Your task to perform on an android device: turn off translation in the chrome app Image 0: 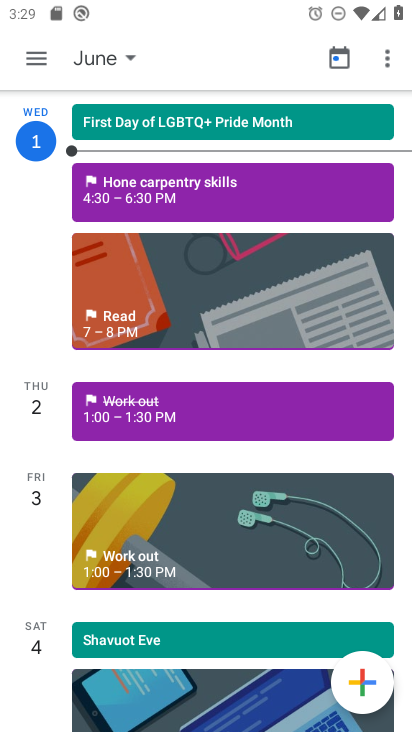
Step 0: press home button
Your task to perform on an android device: turn off translation in the chrome app Image 1: 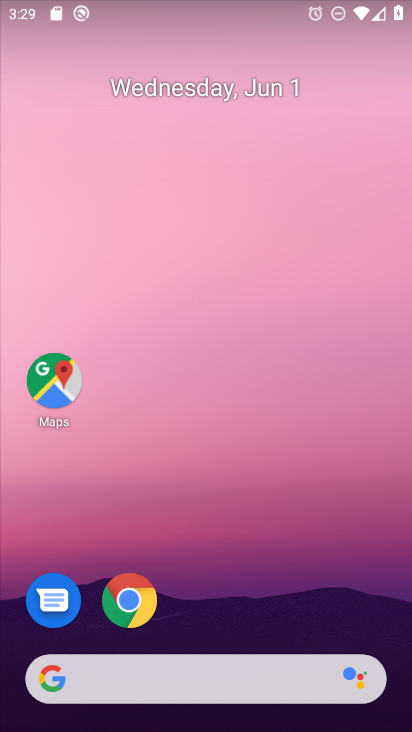
Step 1: drag from (214, 602) to (231, 239)
Your task to perform on an android device: turn off translation in the chrome app Image 2: 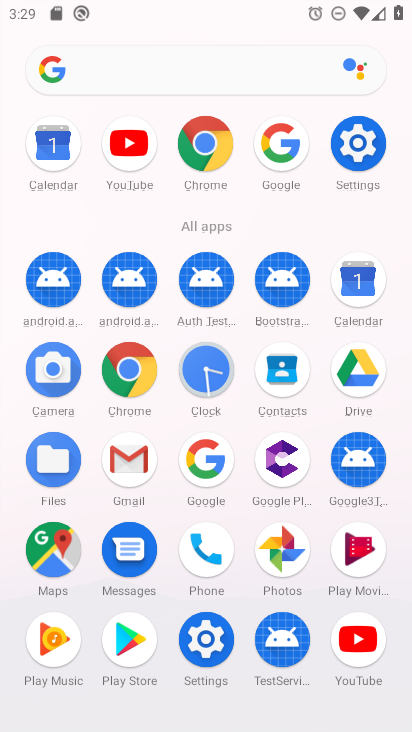
Step 2: click (212, 140)
Your task to perform on an android device: turn off translation in the chrome app Image 3: 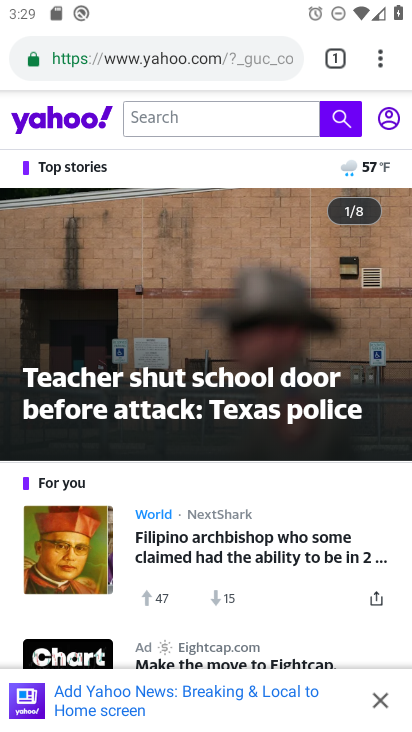
Step 3: click (389, 67)
Your task to perform on an android device: turn off translation in the chrome app Image 4: 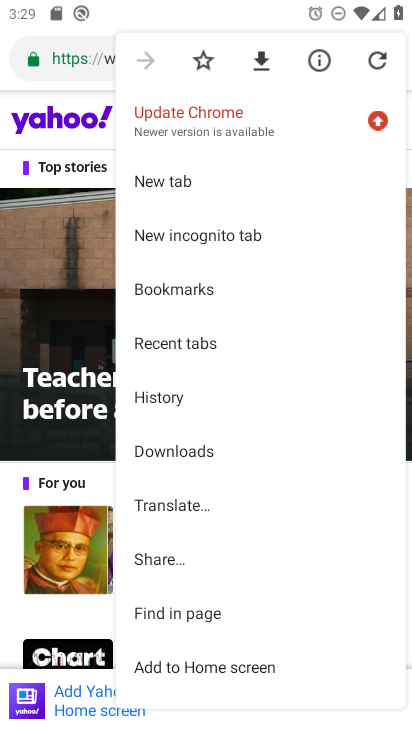
Step 4: drag from (178, 644) to (193, 493)
Your task to perform on an android device: turn off translation in the chrome app Image 5: 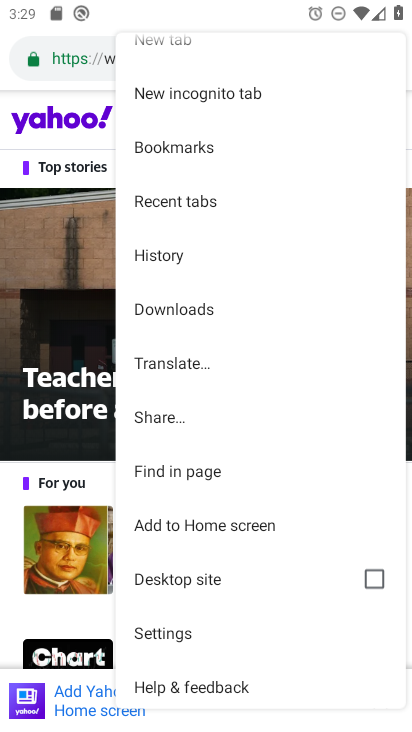
Step 5: click (176, 638)
Your task to perform on an android device: turn off translation in the chrome app Image 6: 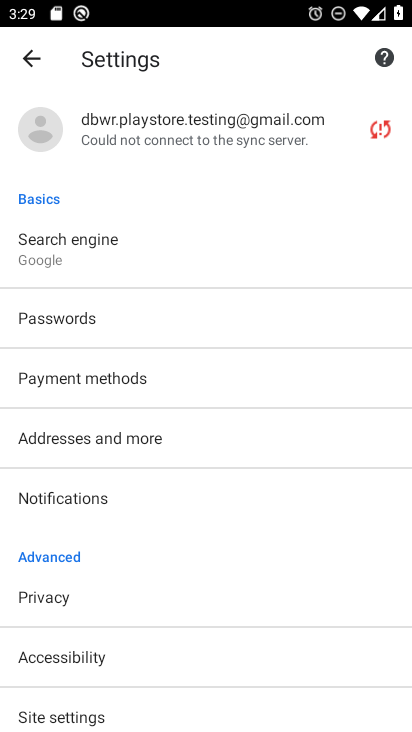
Step 6: drag from (106, 703) to (127, 445)
Your task to perform on an android device: turn off translation in the chrome app Image 7: 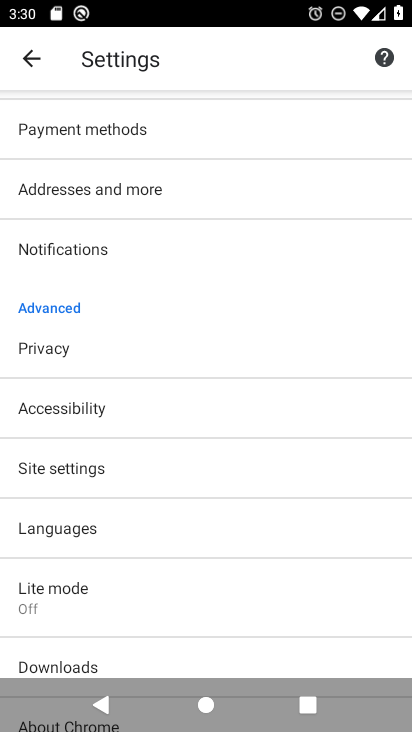
Step 7: click (60, 530)
Your task to perform on an android device: turn off translation in the chrome app Image 8: 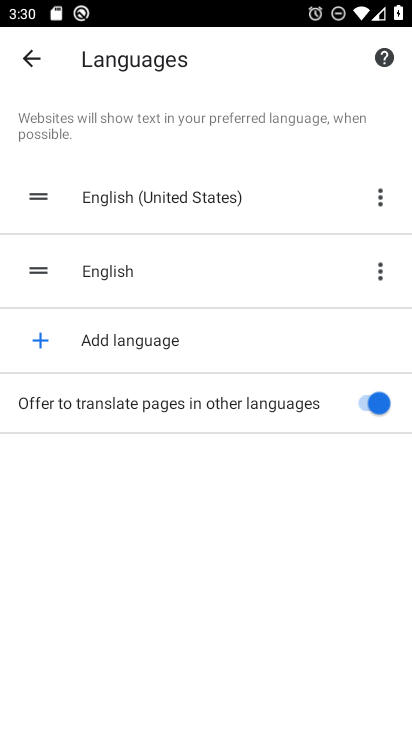
Step 8: click (359, 413)
Your task to perform on an android device: turn off translation in the chrome app Image 9: 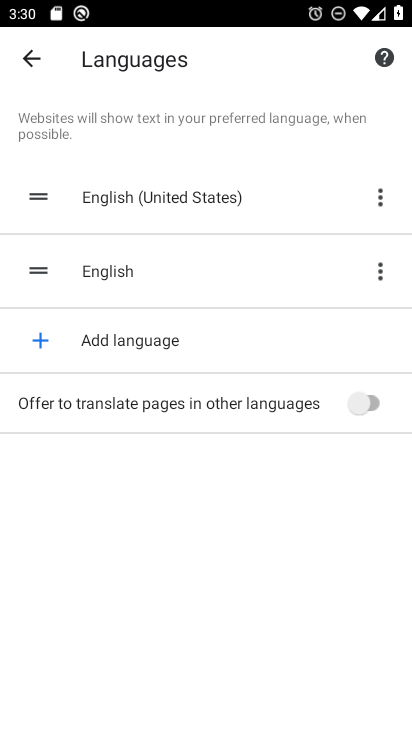
Step 9: task complete